Your task to perform on an android device: What's the weather going to be tomorrow? Image 0: 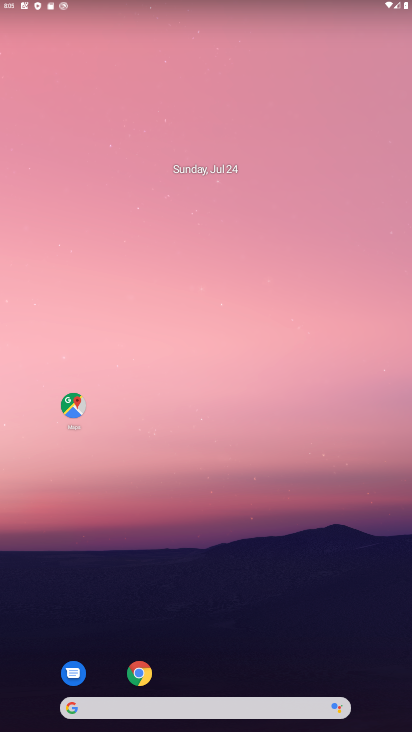
Step 0: drag from (172, 558) to (203, 167)
Your task to perform on an android device: What's the weather going to be tomorrow? Image 1: 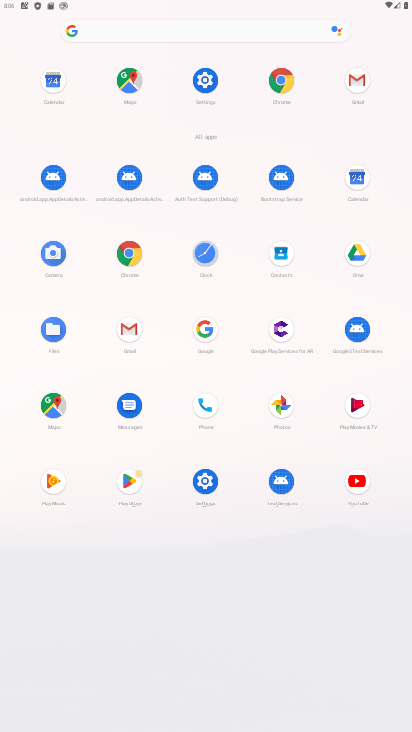
Step 1: click (57, 411)
Your task to perform on an android device: What's the weather going to be tomorrow? Image 2: 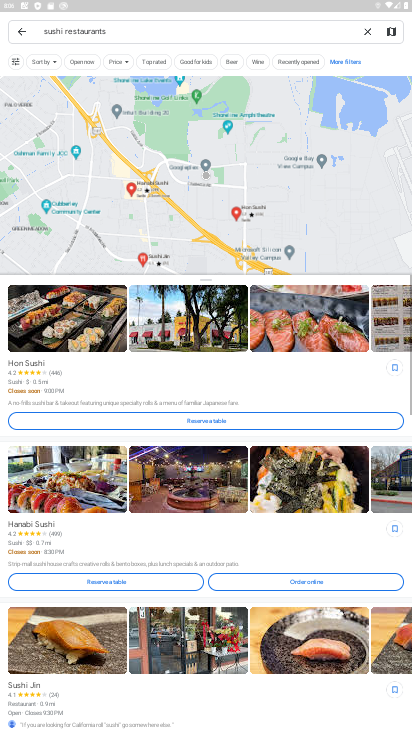
Step 2: press back button
Your task to perform on an android device: What's the weather going to be tomorrow? Image 3: 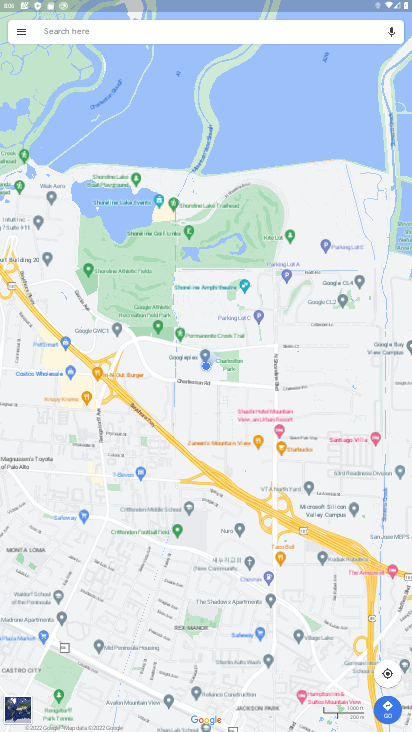
Step 3: press home button
Your task to perform on an android device: What's the weather going to be tomorrow? Image 4: 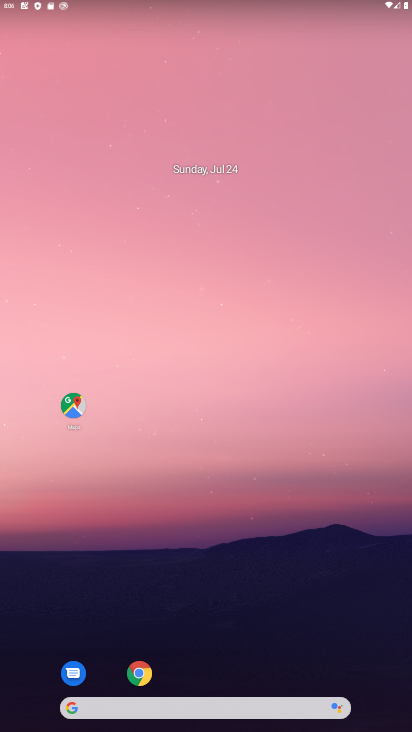
Step 4: drag from (178, 678) to (178, 226)
Your task to perform on an android device: What's the weather going to be tomorrow? Image 5: 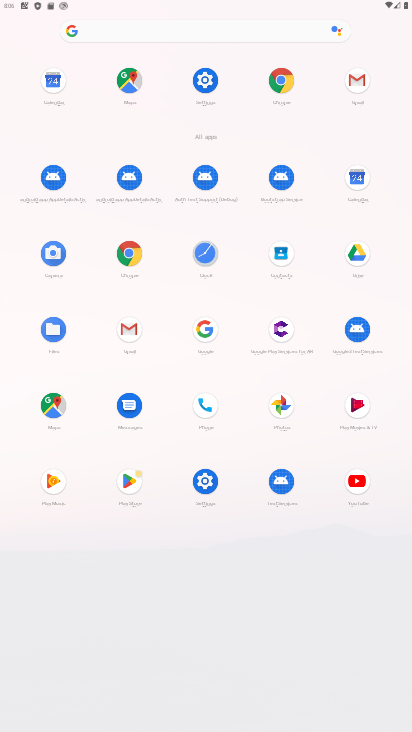
Step 5: click (207, 333)
Your task to perform on an android device: What's the weather going to be tomorrow? Image 6: 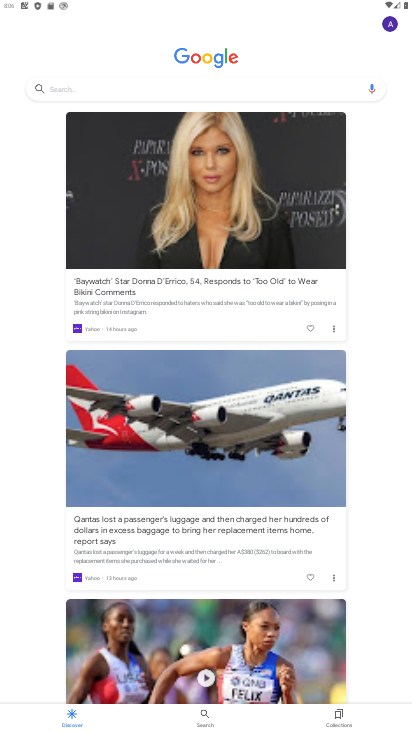
Step 6: click (175, 81)
Your task to perform on an android device: What's the weather going to be tomorrow? Image 7: 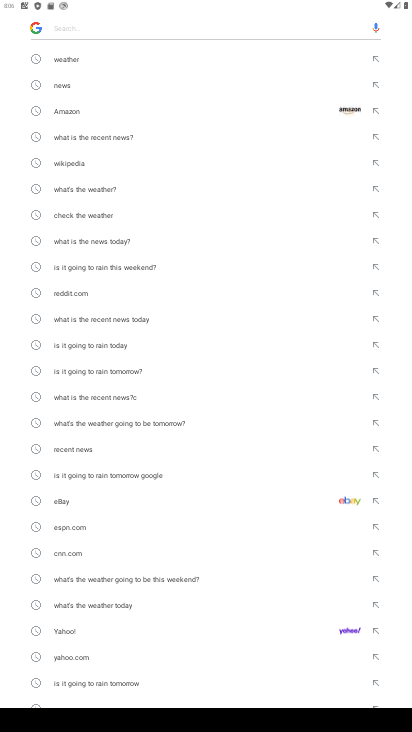
Step 7: click (60, 52)
Your task to perform on an android device: What's the weather going to be tomorrow? Image 8: 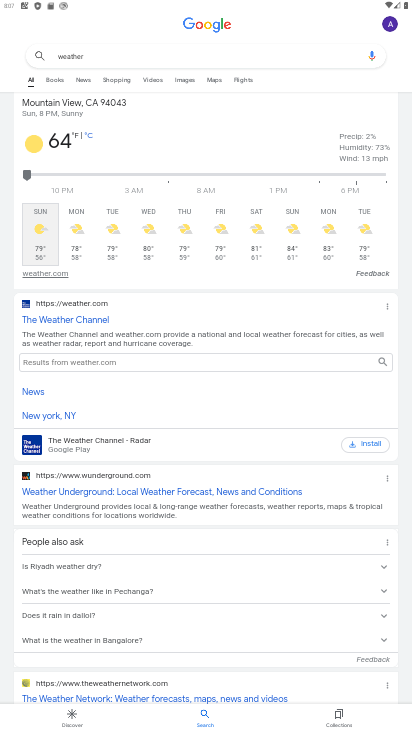
Step 8: click (40, 272)
Your task to perform on an android device: What's the weather going to be tomorrow? Image 9: 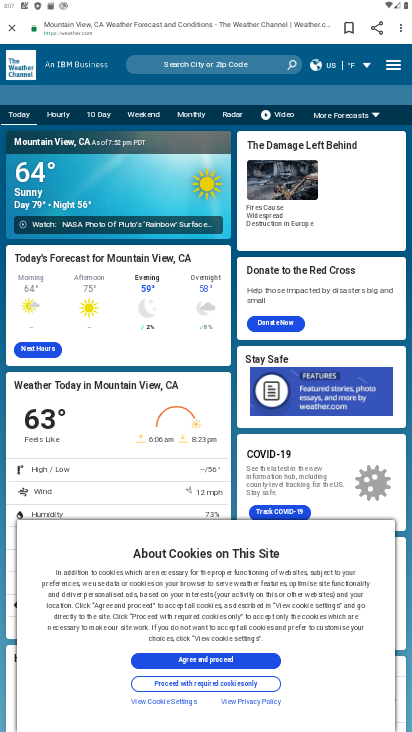
Step 9: click (95, 117)
Your task to perform on an android device: What's the weather going to be tomorrow? Image 10: 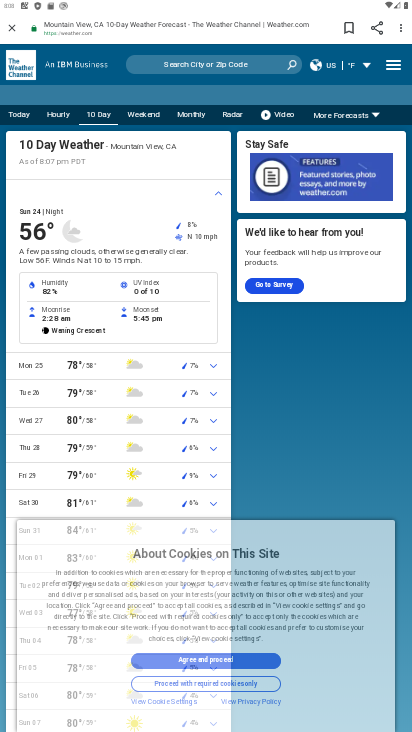
Step 10: task complete